Your task to perform on an android device: Open the calendar app, open the side menu, and click the "Day" option Image 0: 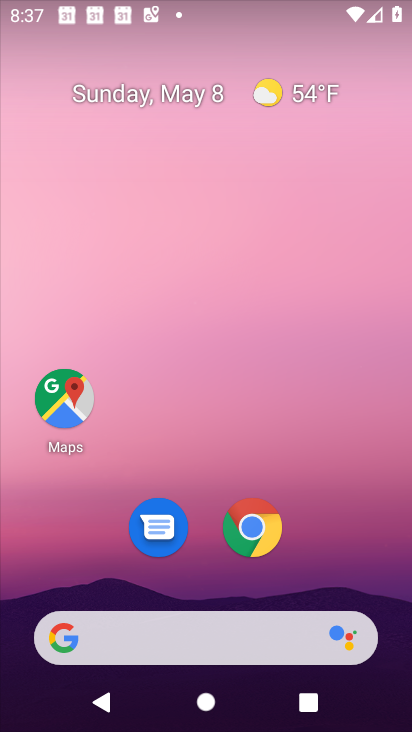
Step 0: drag from (344, 592) to (339, 71)
Your task to perform on an android device: Open the calendar app, open the side menu, and click the "Day" option Image 1: 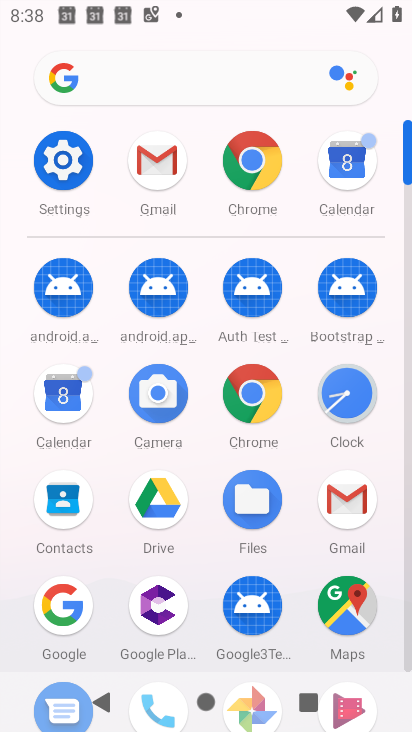
Step 1: click (71, 408)
Your task to perform on an android device: Open the calendar app, open the side menu, and click the "Day" option Image 2: 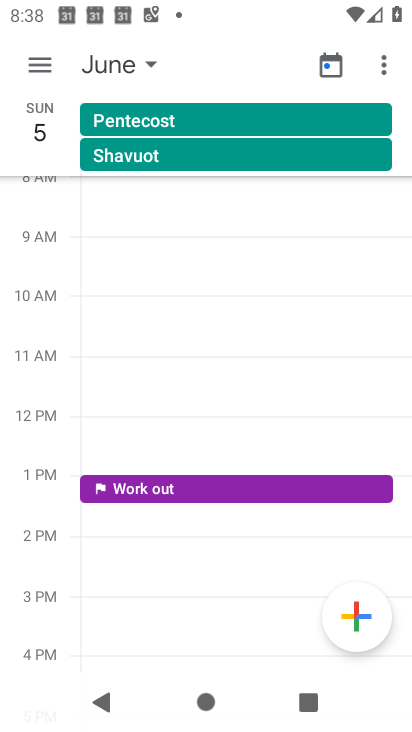
Step 2: click (37, 68)
Your task to perform on an android device: Open the calendar app, open the side menu, and click the "Day" option Image 3: 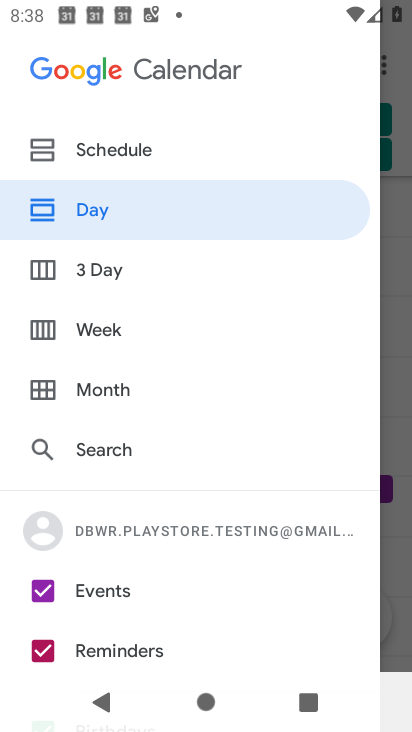
Step 3: click (126, 207)
Your task to perform on an android device: Open the calendar app, open the side menu, and click the "Day" option Image 4: 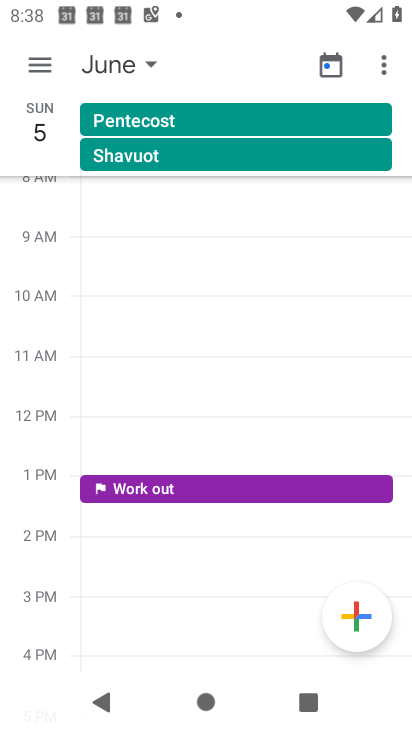
Step 4: task complete